Your task to perform on an android device: Go to notification settings Image 0: 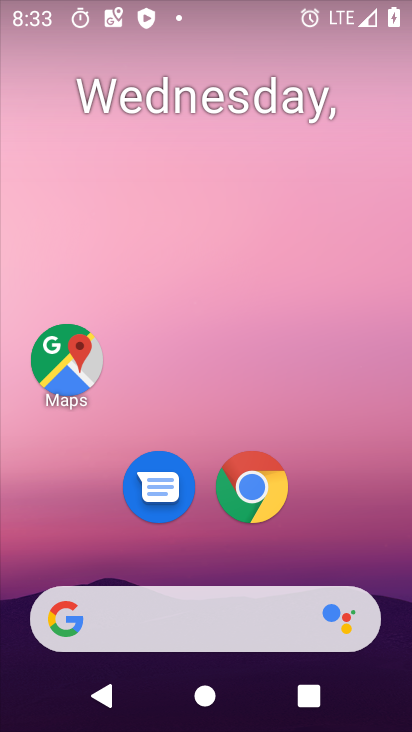
Step 0: drag from (364, 562) to (332, 55)
Your task to perform on an android device: Go to notification settings Image 1: 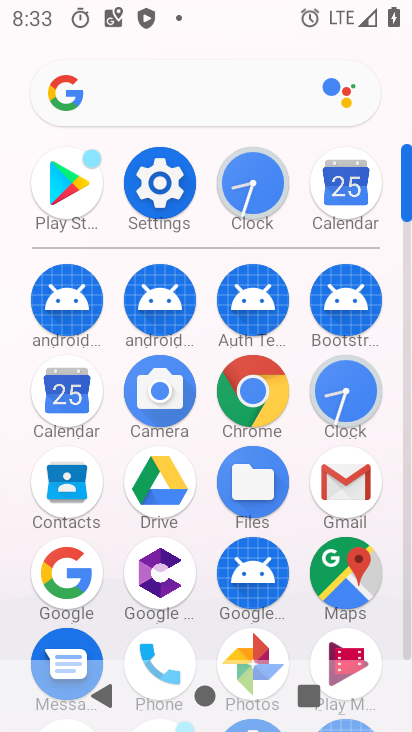
Step 1: click (152, 185)
Your task to perform on an android device: Go to notification settings Image 2: 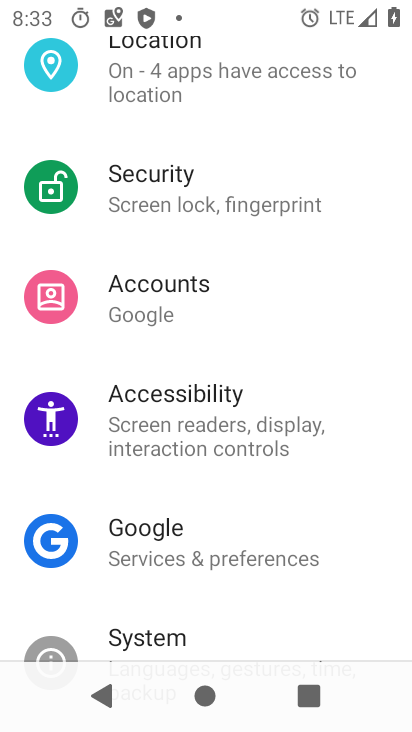
Step 2: drag from (219, 158) to (226, 398)
Your task to perform on an android device: Go to notification settings Image 3: 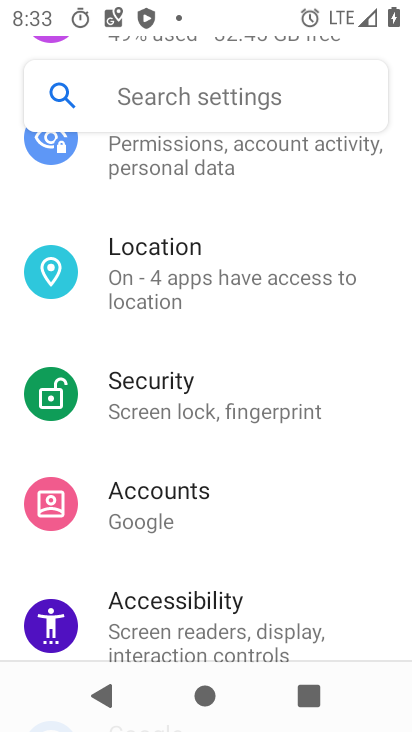
Step 3: drag from (219, 331) to (220, 594)
Your task to perform on an android device: Go to notification settings Image 4: 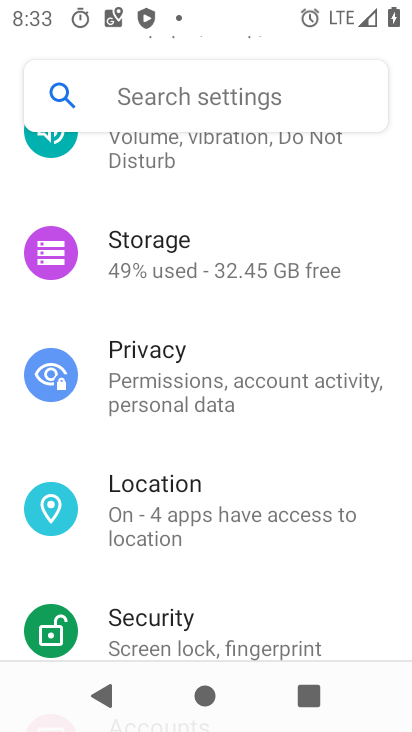
Step 4: drag from (275, 270) to (287, 583)
Your task to perform on an android device: Go to notification settings Image 5: 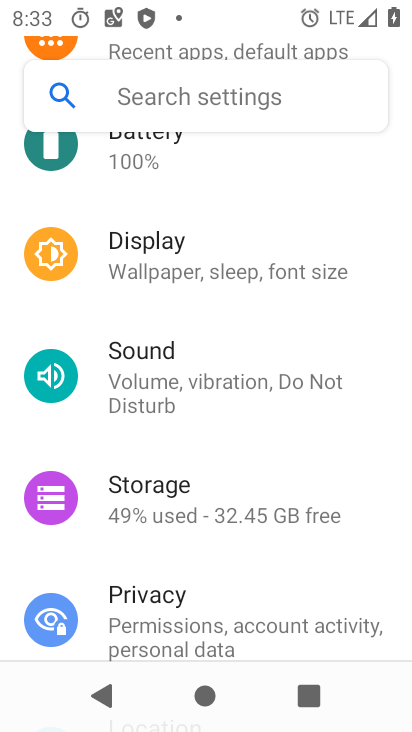
Step 5: drag from (232, 256) to (234, 508)
Your task to perform on an android device: Go to notification settings Image 6: 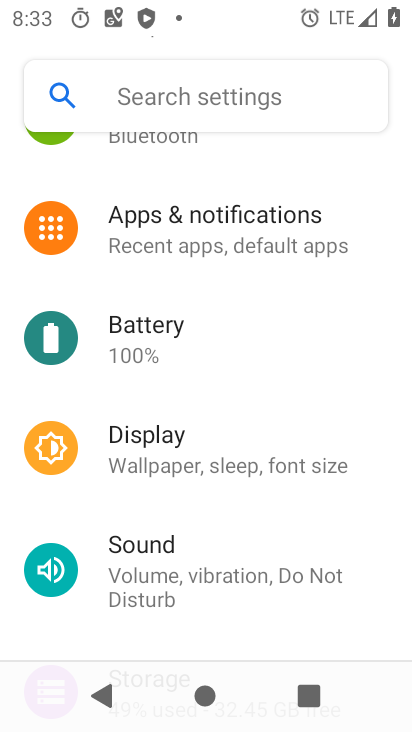
Step 6: click (195, 240)
Your task to perform on an android device: Go to notification settings Image 7: 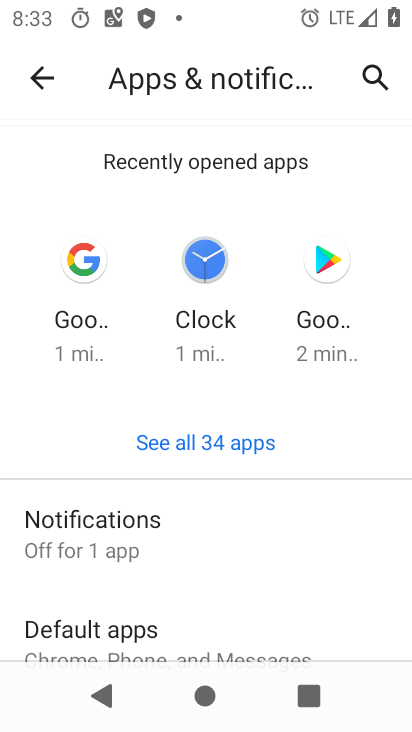
Step 7: task complete